Your task to perform on an android device: set the timer Image 0: 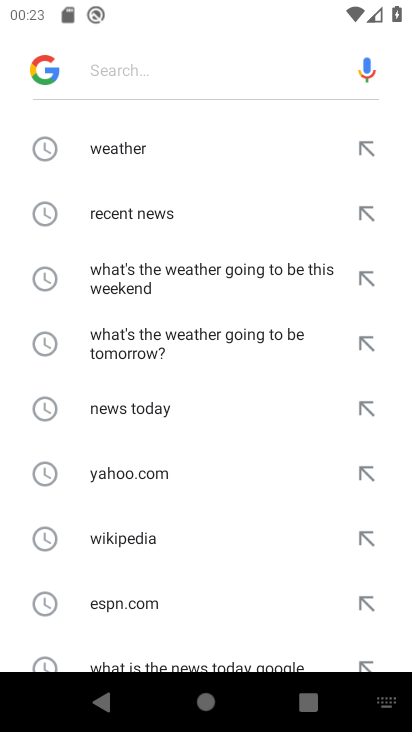
Step 0: press back button
Your task to perform on an android device: set the timer Image 1: 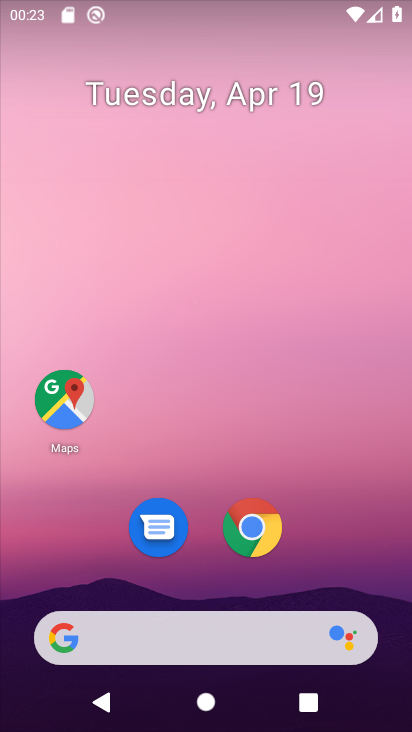
Step 1: drag from (350, 573) to (344, 14)
Your task to perform on an android device: set the timer Image 2: 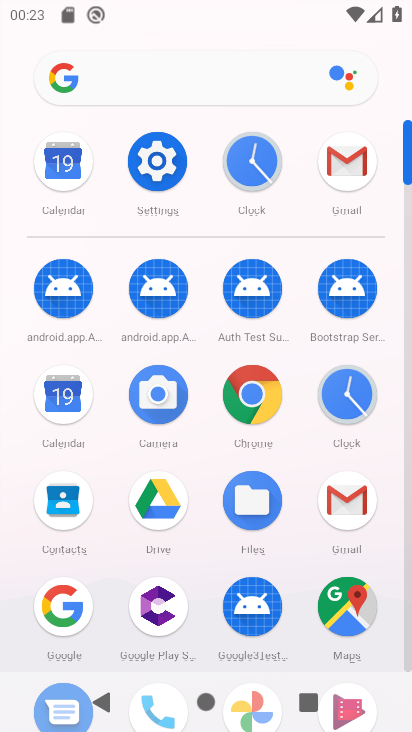
Step 2: click (342, 388)
Your task to perform on an android device: set the timer Image 3: 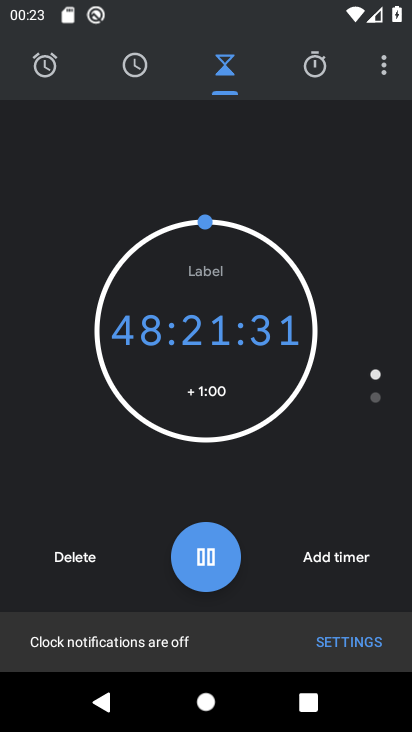
Step 3: click (351, 553)
Your task to perform on an android device: set the timer Image 4: 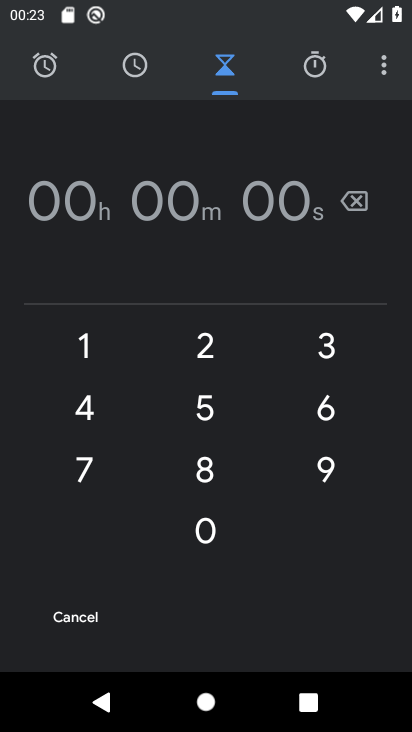
Step 4: click (81, 346)
Your task to perform on an android device: set the timer Image 5: 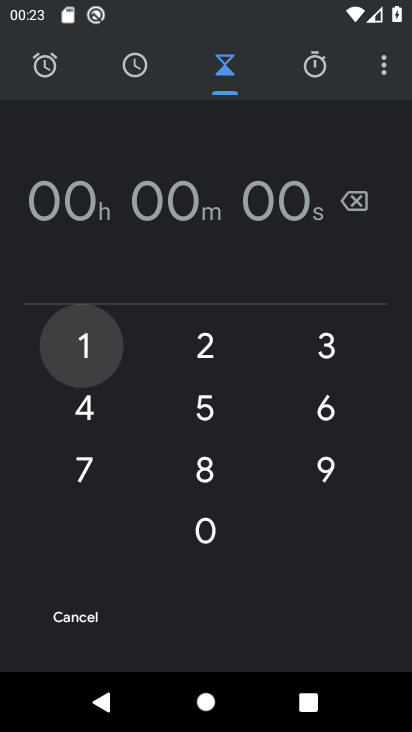
Step 5: click (216, 412)
Your task to perform on an android device: set the timer Image 6: 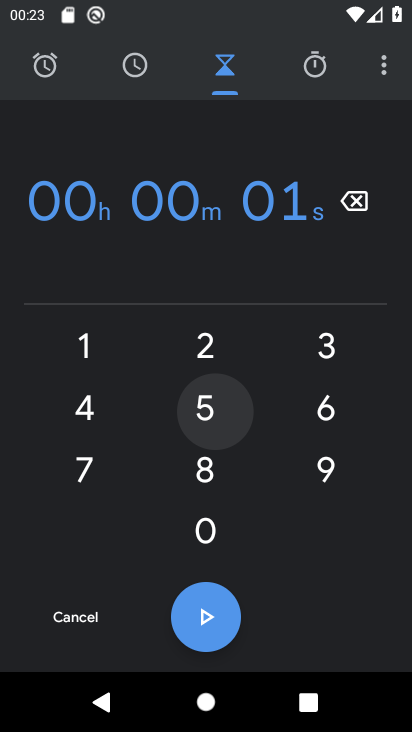
Step 6: click (275, 464)
Your task to perform on an android device: set the timer Image 7: 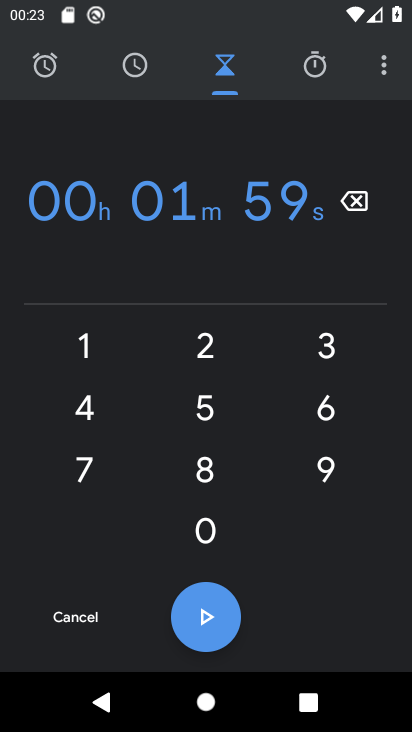
Step 7: click (95, 482)
Your task to perform on an android device: set the timer Image 8: 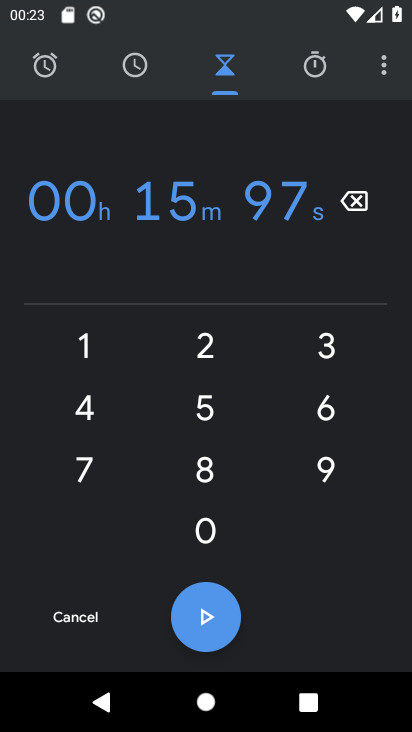
Step 8: click (190, 404)
Your task to perform on an android device: set the timer Image 9: 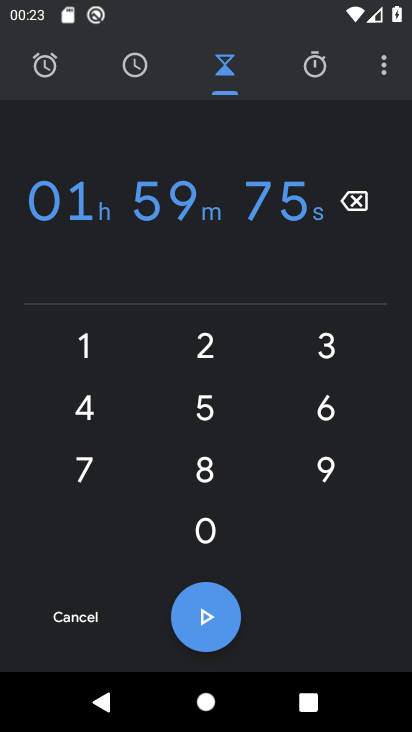
Step 9: click (324, 308)
Your task to perform on an android device: set the timer Image 10: 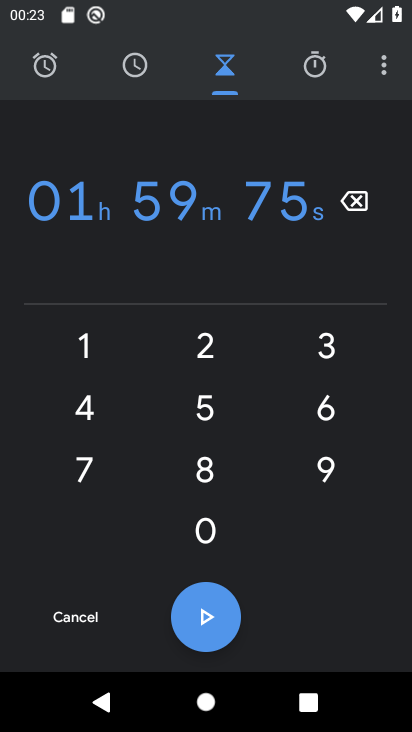
Step 10: click (330, 330)
Your task to perform on an android device: set the timer Image 11: 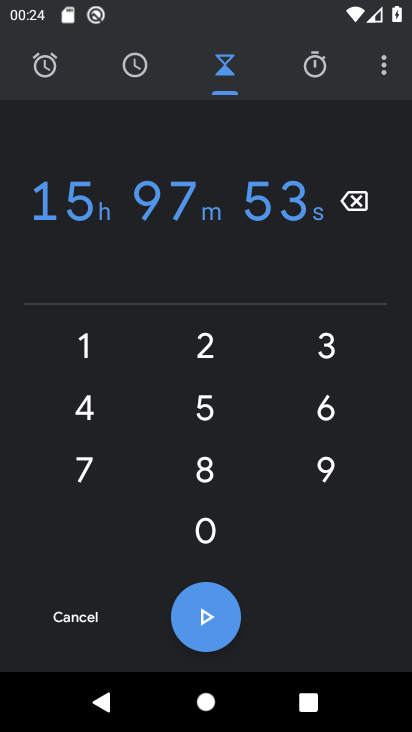
Step 11: click (200, 615)
Your task to perform on an android device: set the timer Image 12: 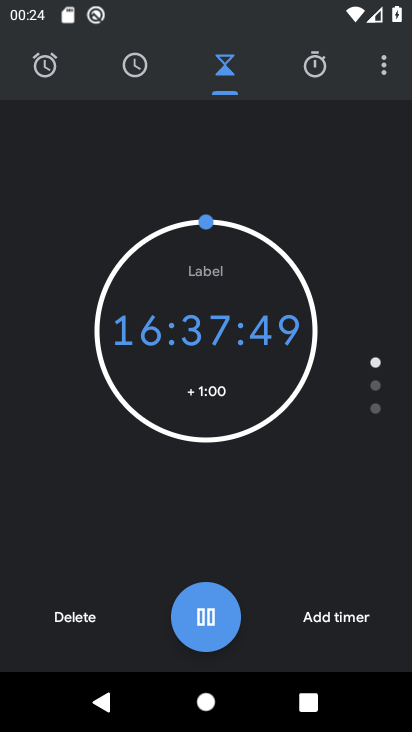
Step 12: task complete